Your task to perform on an android device: Open the stopwatch Image 0: 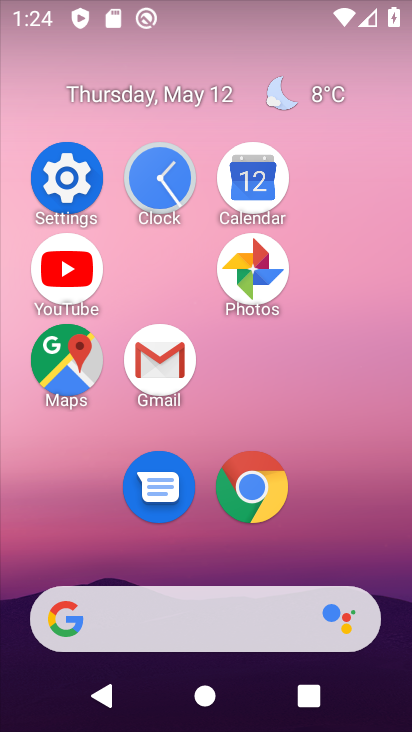
Step 0: click (179, 186)
Your task to perform on an android device: Open the stopwatch Image 1: 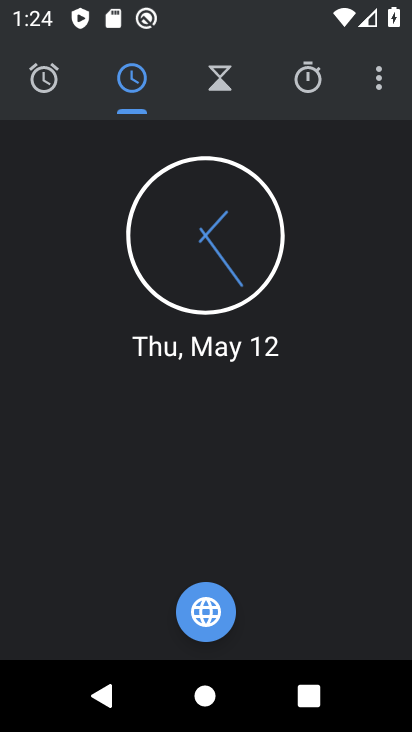
Step 1: click (295, 86)
Your task to perform on an android device: Open the stopwatch Image 2: 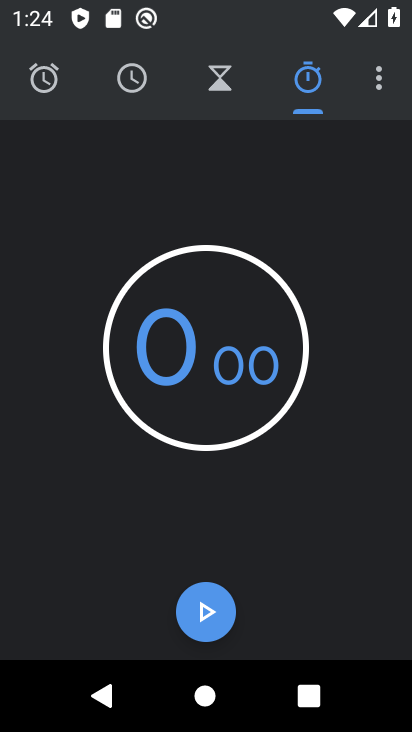
Step 2: task complete